Your task to perform on an android device: check out phone information Image 0: 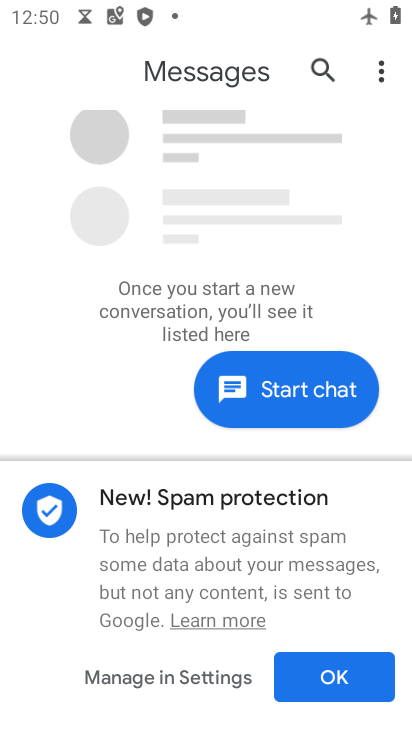
Step 0: press home button
Your task to perform on an android device: check out phone information Image 1: 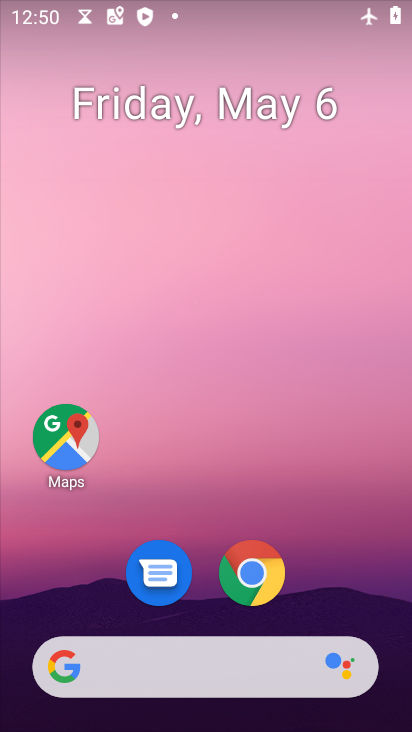
Step 1: drag from (325, 535) to (368, 192)
Your task to perform on an android device: check out phone information Image 2: 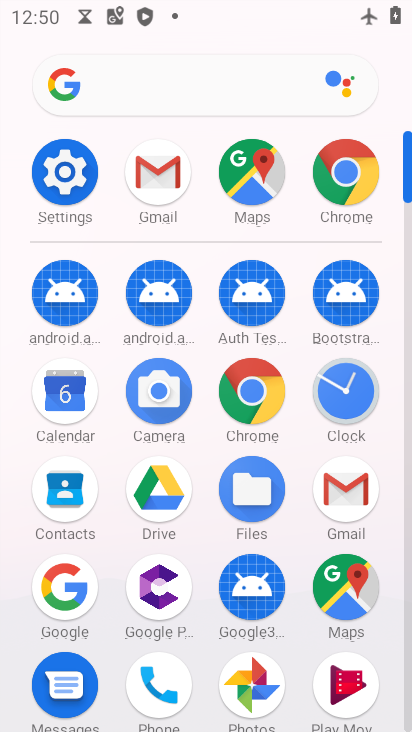
Step 2: click (53, 148)
Your task to perform on an android device: check out phone information Image 3: 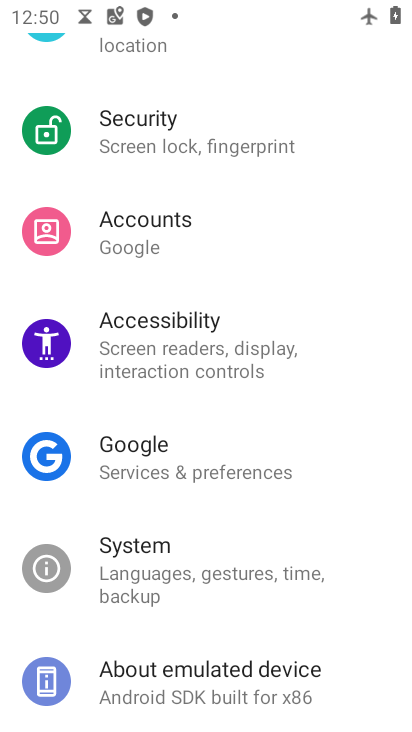
Step 3: click (234, 682)
Your task to perform on an android device: check out phone information Image 4: 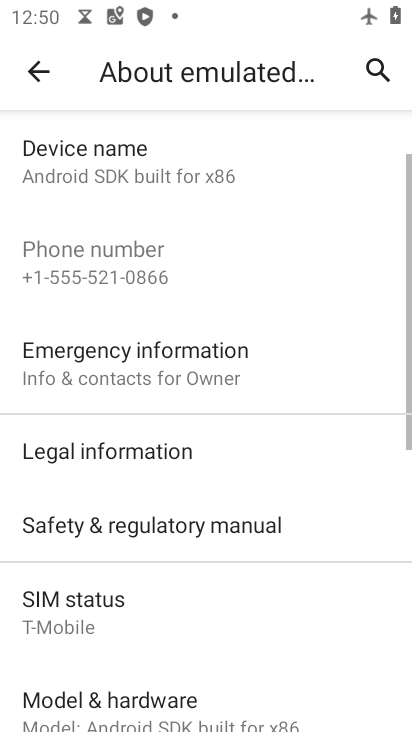
Step 4: click (204, 377)
Your task to perform on an android device: check out phone information Image 5: 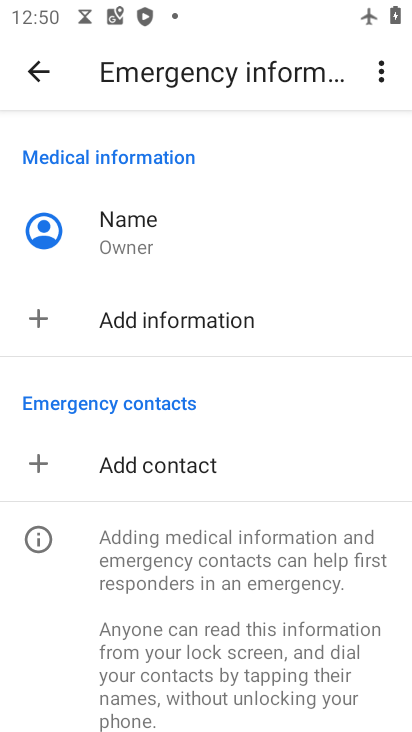
Step 5: click (37, 83)
Your task to perform on an android device: check out phone information Image 6: 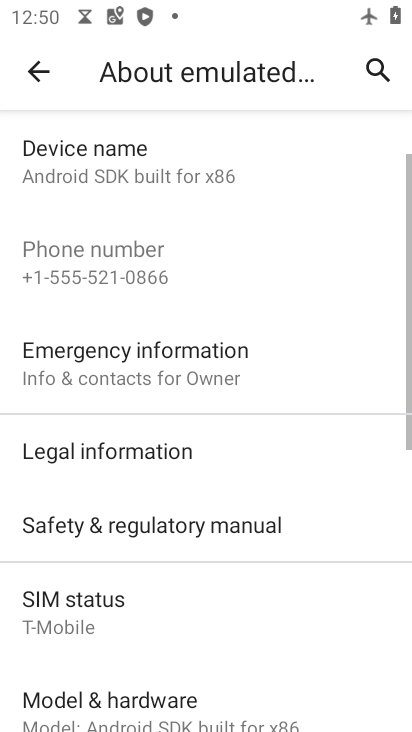
Step 6: task complete